Your task to perform on an android device: read, delete, or share a saved page in the chrome app Image 0: 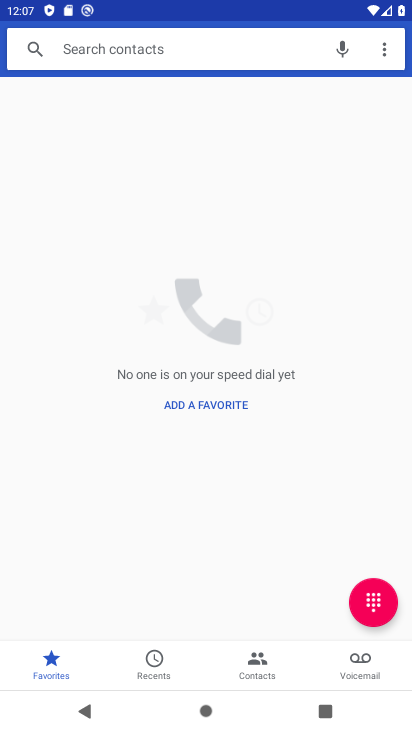
Step 0: press home button
Your task to perform on an android device: read, delete, or share a saved page in the chrome app Image 1: 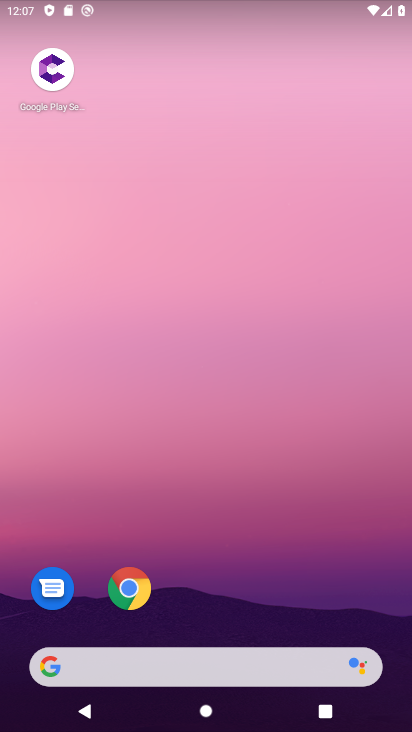
Step 1: click (127, 590)
Your task to perform on an android device: read, delete, or share a saved page in the chrome app Image 2: 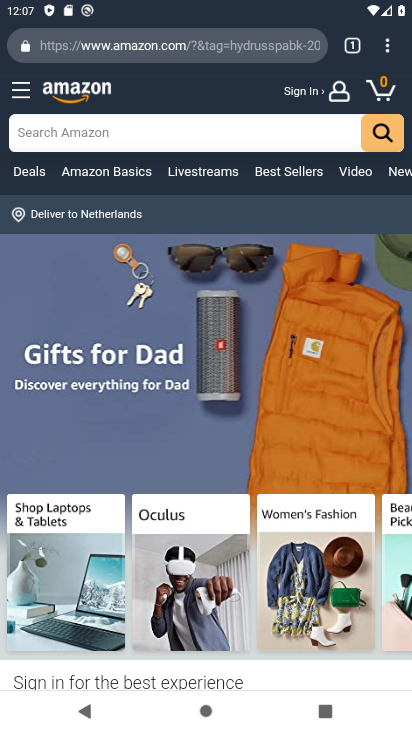
Step 2: click (385, 52)
Your task to perform on an android device: read, delete, or share a saved page in the chrome app Image 3: 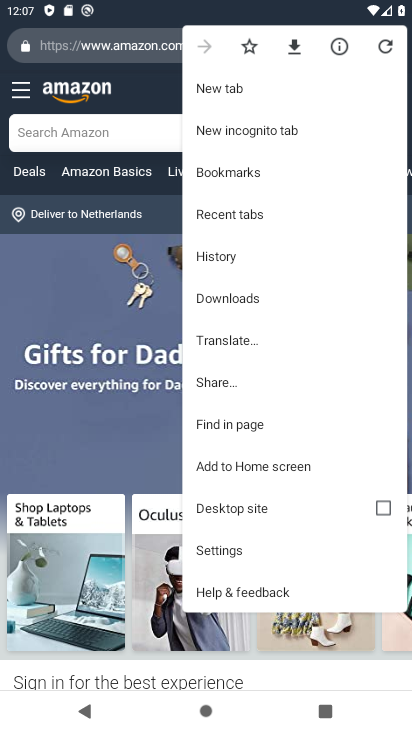
Step 3: click (223, 287)
Your task to perform on an android device: read, delete, or share a saved page in the chrome app Image 4: 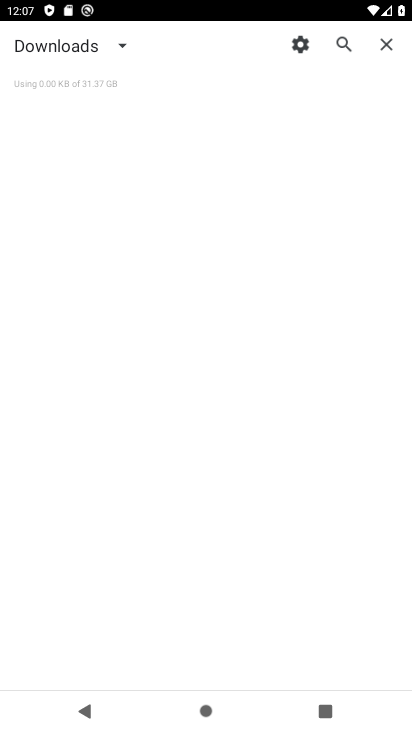
Step 4: click (118, 41)
Your task to perform on an android device: read, delete, or share a saved page in the chrome app Image 5: 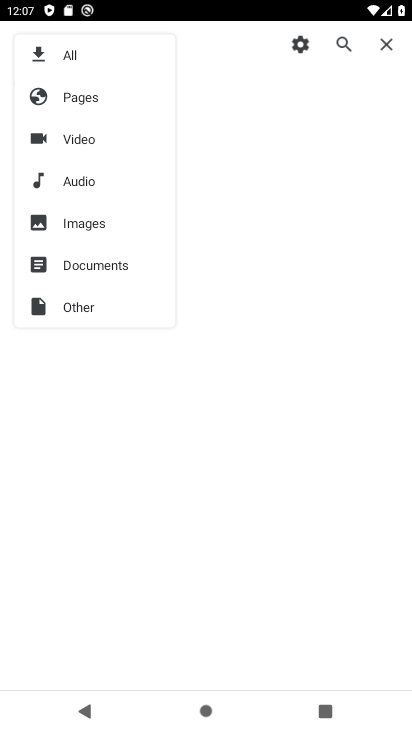
Step 5: click (77, 96)
Your task to perform on an android device: read, delete, or share a saved page in the chrome app Image 6: 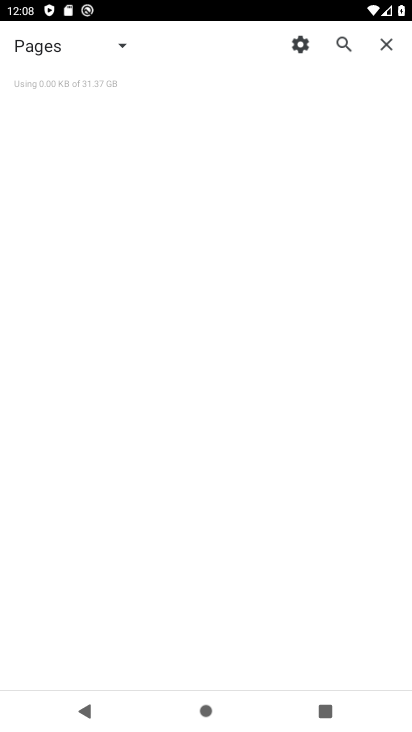
Step 6: task complete